Your task to perform on an android device: Open the Play Movies app and select the watchlist tab. Image 0: 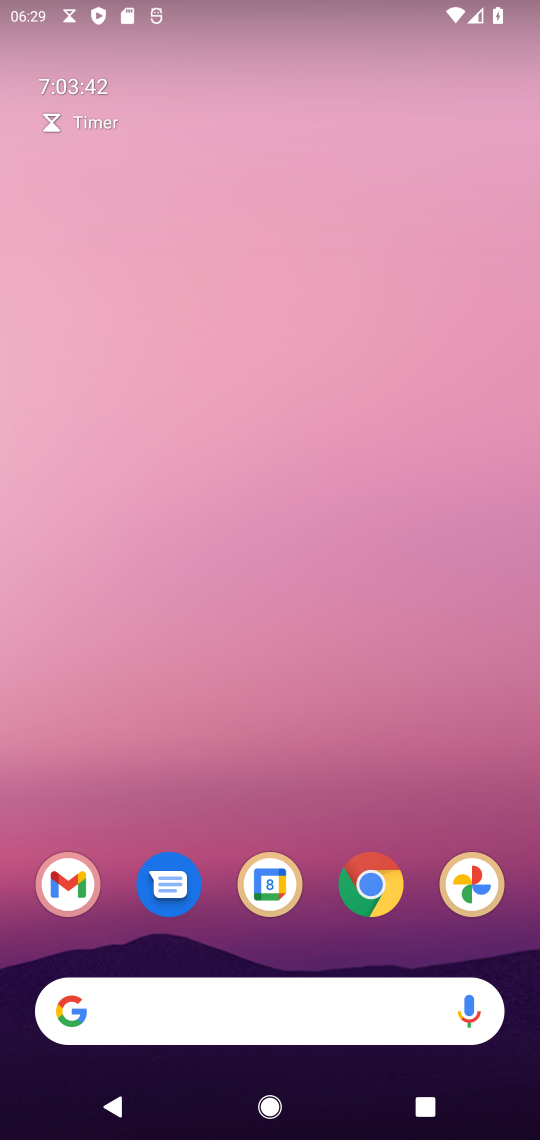
Step 0: drag from (408, 821) to (290, 208)
Your task to perform on an android device: Open the Play Movies app and select the watchlist tab. Image 1: 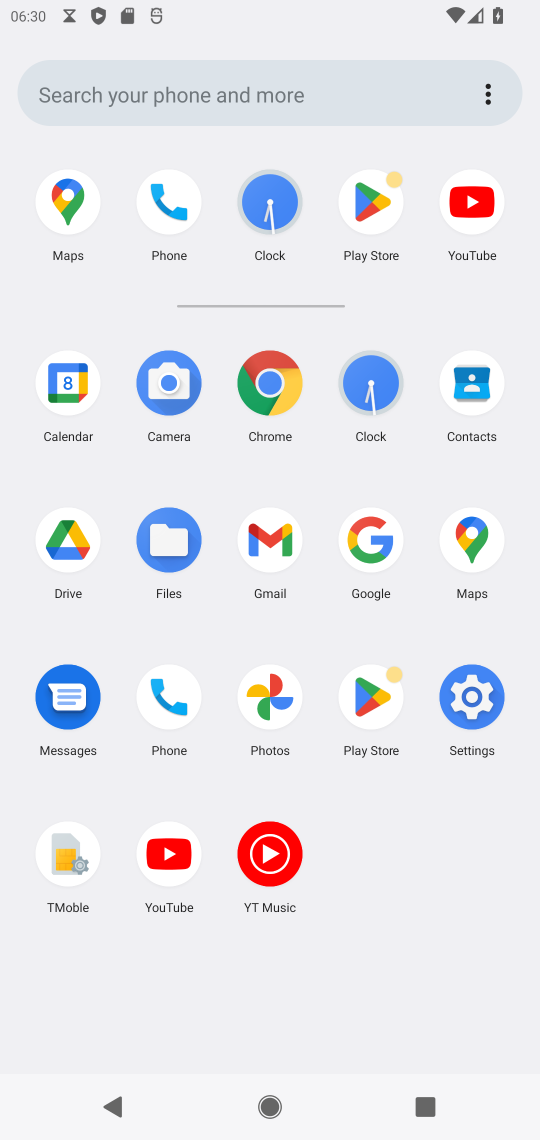
Step 1: task complete